Your task to perform on an android device: show emergency info Image 0: 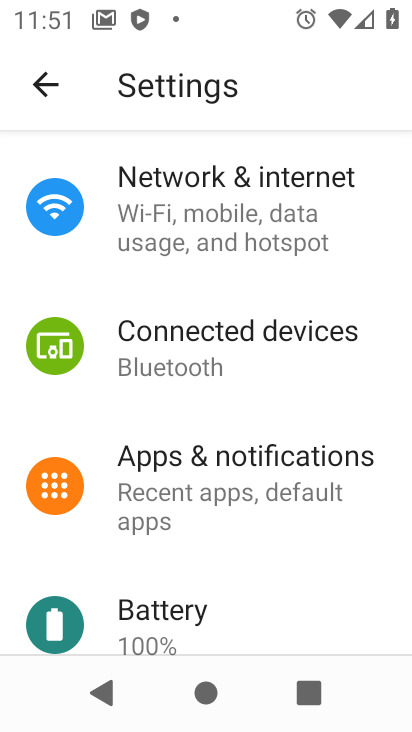
Step 0: press home button
Your task to perform on an android device: show emergency info Image 1: 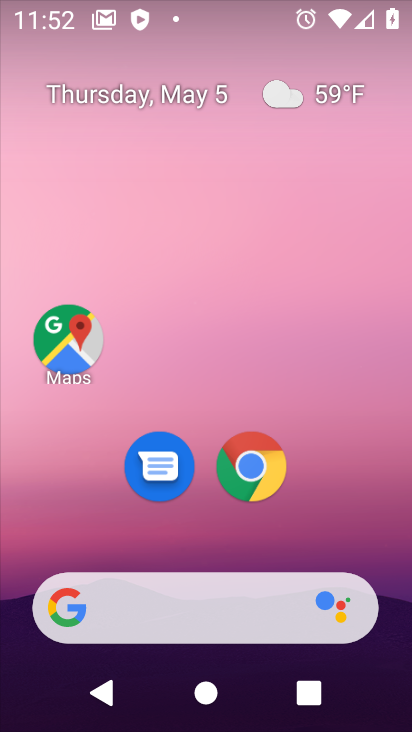
Step 1: drag from (199, 570) to (177, 199)
Your task to perform on an android device: show emergency info Image 2: 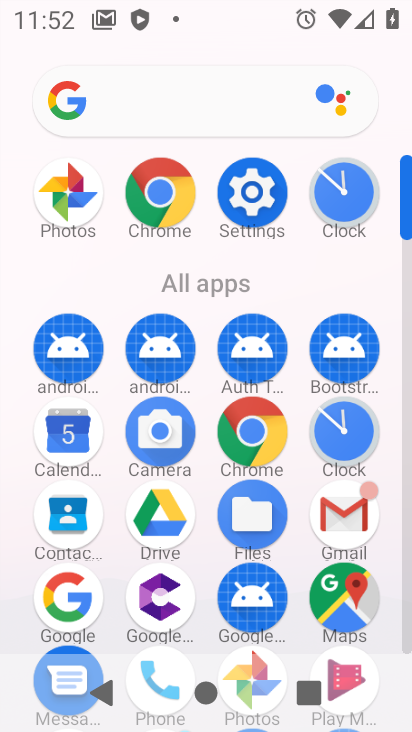
Step 2: click (254, 195)
Your task to perform on an android device: show emergency info Image 3: 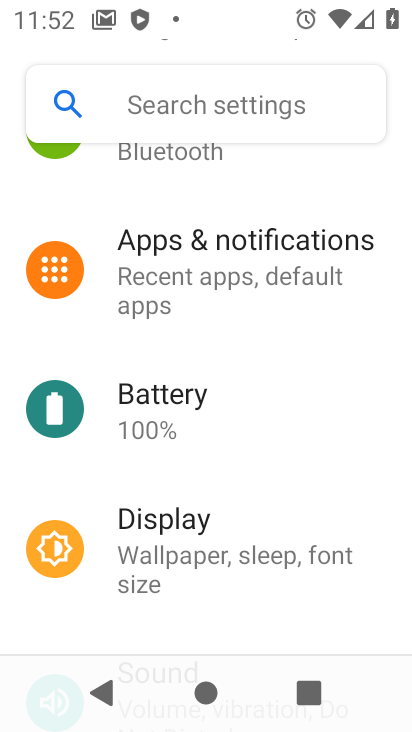
Step 3: drag from (193, 616) to (203, 224)
Your task to perform on an android device: show emergency info Image 4: 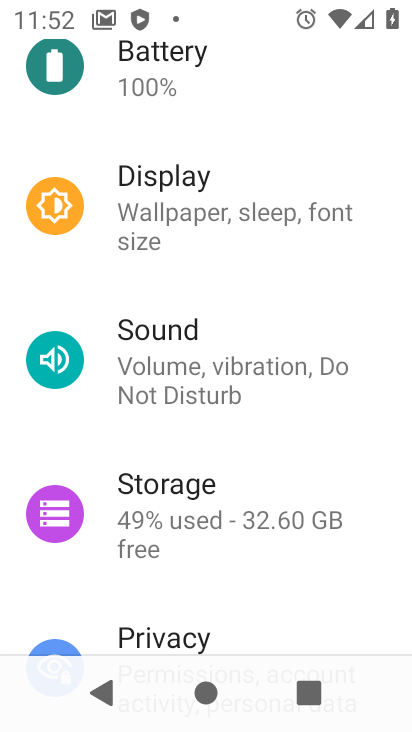
Step 4: drag from (202, 571) to (258, 120)
Your task to perform on an android device: show emergency info Image 5: 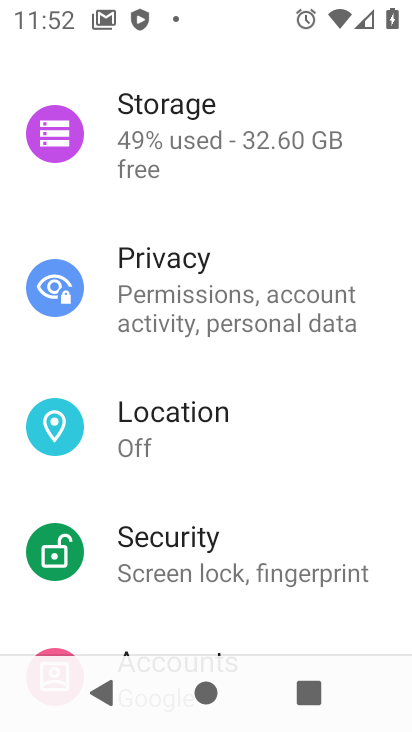
Step 5: drag from (236, 621) to (296, 193)
Your task to perform on an android device: show emergency info Image 6: 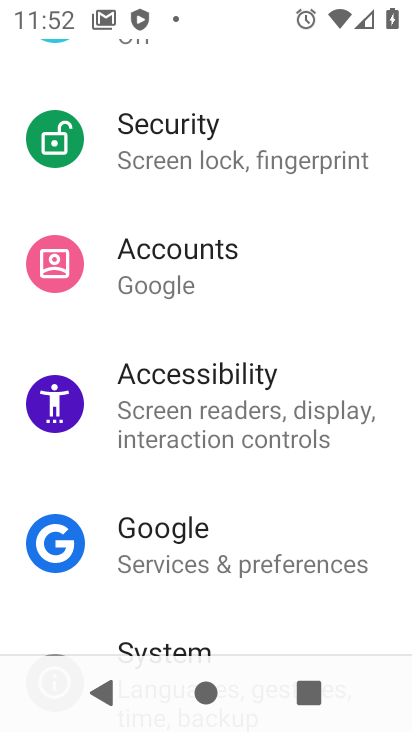
Step 6: drag from (264, 620) to (289, 251)
Your task to perform on an android device: show emergency info Image 7: 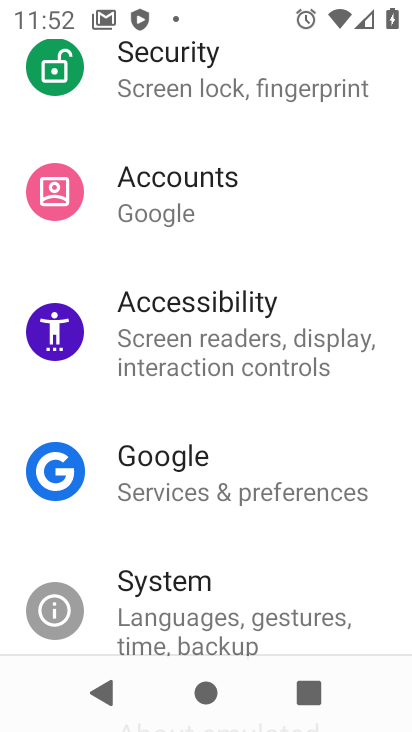
Step 7: drag from (313, 644) to (311, 307)
Your task to perform on an android device: show emergency info Image 8: 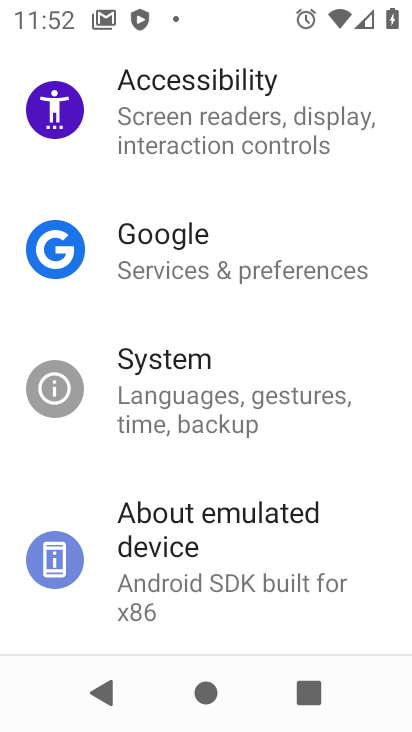
Step 8: click (248, 536)
Your task to perform on an android device: show emergency info Image 9: 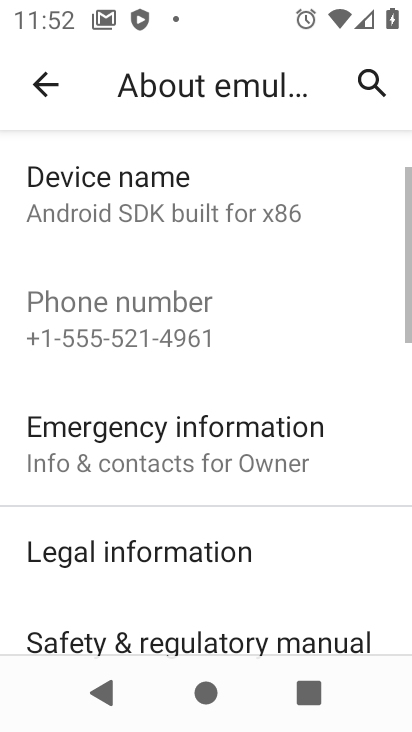
Step 9: drag from (238, 589) to (238, 352)
Your task to perform on an android device: show emergency info Image 10: 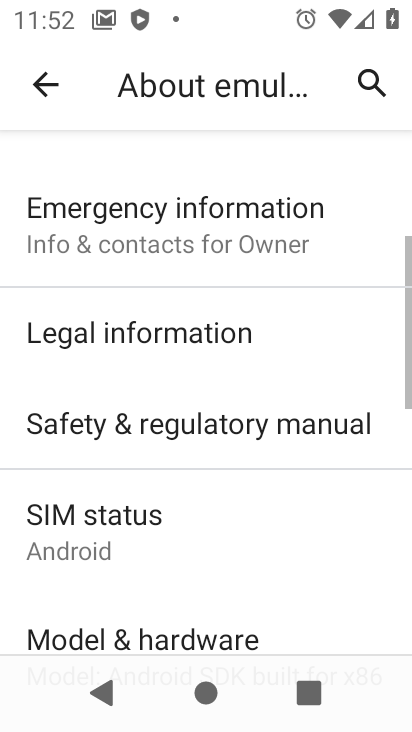
Step 10: click (199, 222)
Your task to perform on an android device: show emergency info Image 11: 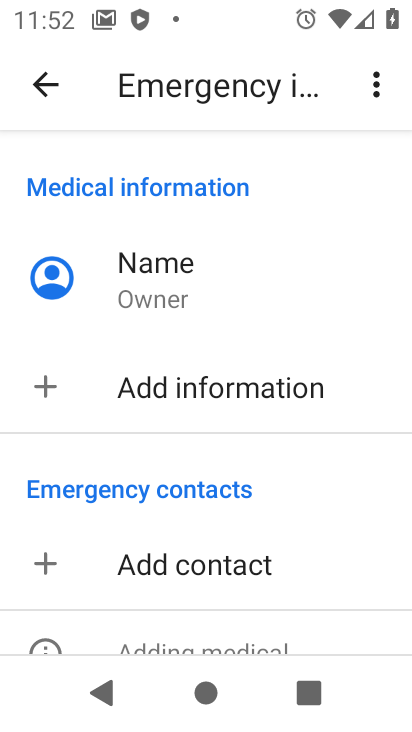
Step 11: task complete